Your task to perform on an android device: turn notification dots on Image 0: 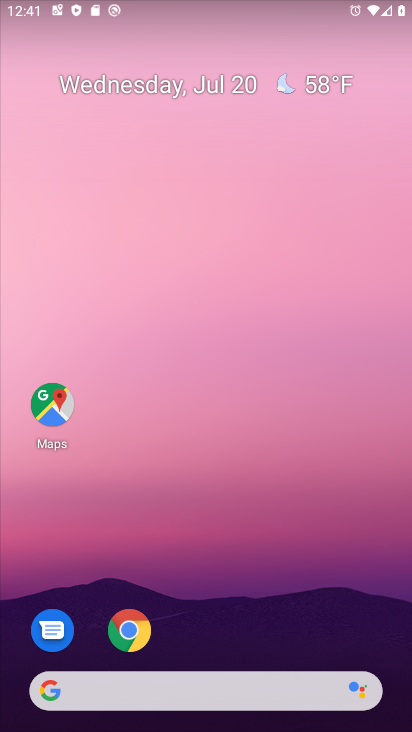
Step 0: press home button
Your task to perform on an android device: turn notification dots on Image 1: 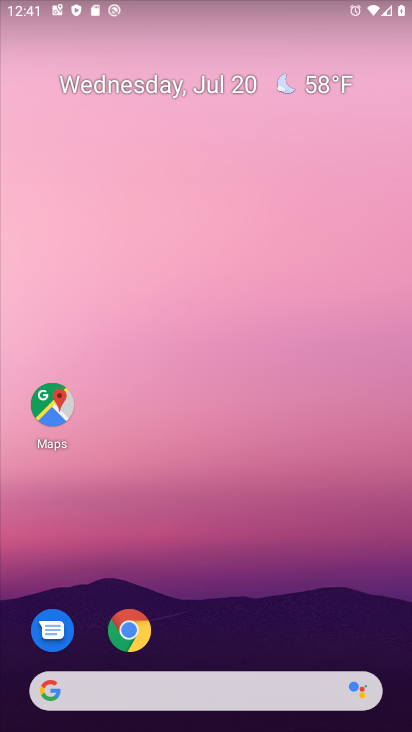
Step 1: drag from (133, 691) to (236, 84)
Your task to perform on an android device: turn notification dots on Image 2: 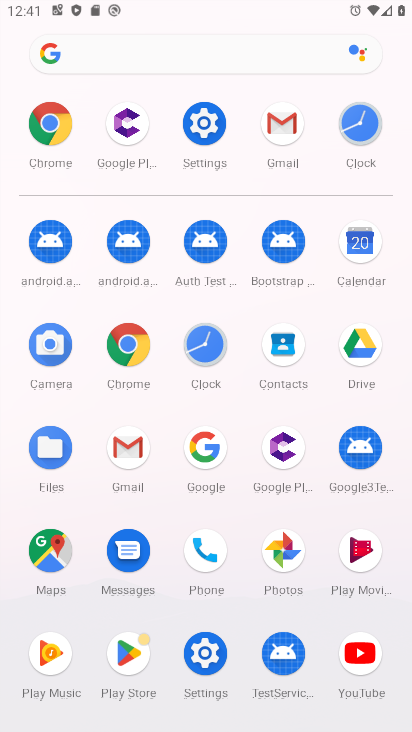
Step 2: click (208, 118)
Your task to perform on an android device: turn notification dots on Image 3: 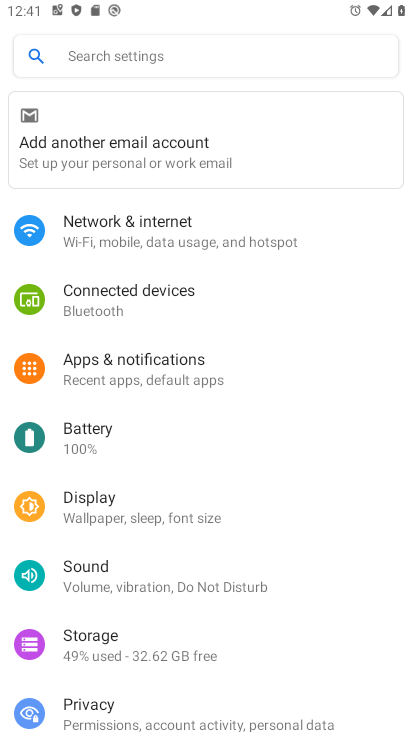
Step 3: click (143, 364)
Your task to perform on an android device: turn notification dots on Image 4: 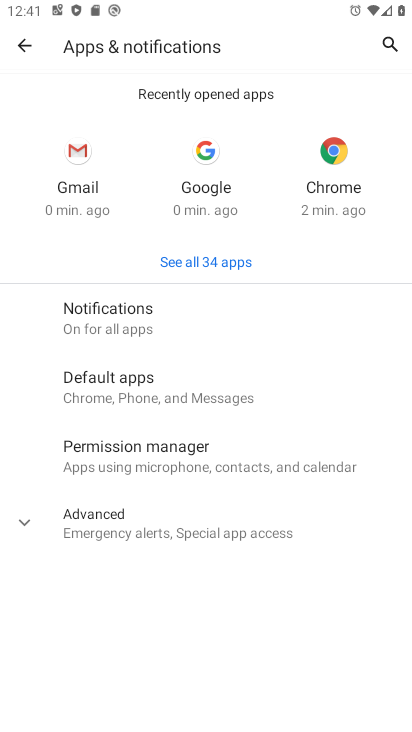
Step 4: click (130, 315)
Your task to perform on an android device: turn notification dots on Image 5: 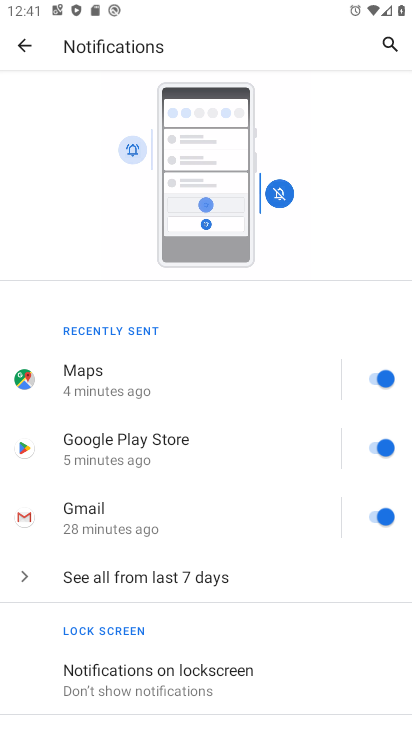
Step 5: drag from (229, 643) to (271, 300)
Your task to perform on an android device: turn notification dots on Image 6: 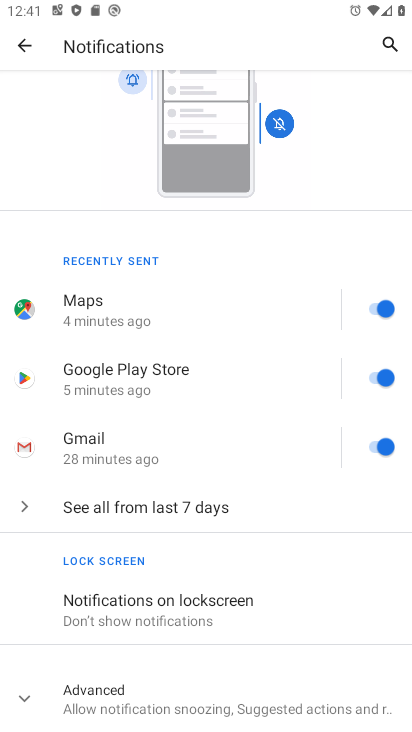
Step 6: click (164, 703)
Your task to perform on an android device: turn notification dots on Image 7: 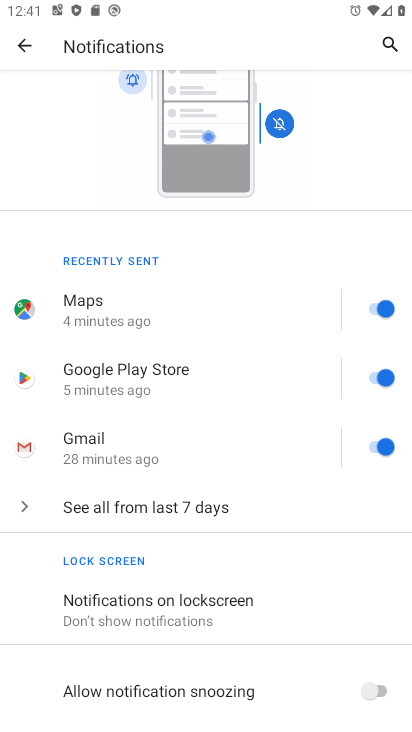
Step 7: task complete